Your task to perform on an android device: turn off location Image 0: 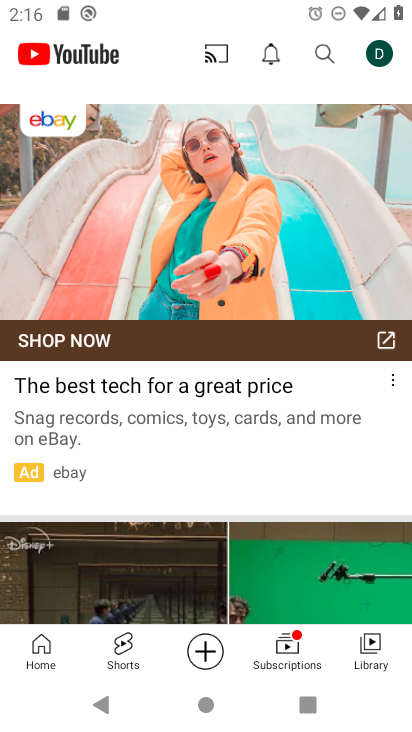
Step 0: press home button
Your task to perform on an android device: turn off location Image 1: 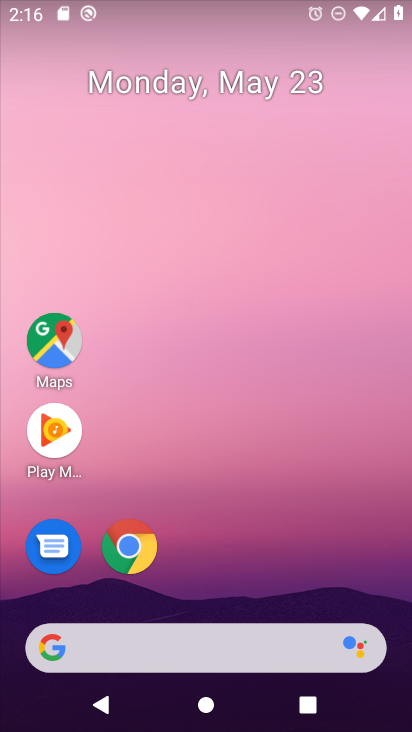
Step 1: drag from (203, 672) to (144, 199)
Your task to perform on an android device: turn off location Image 2: 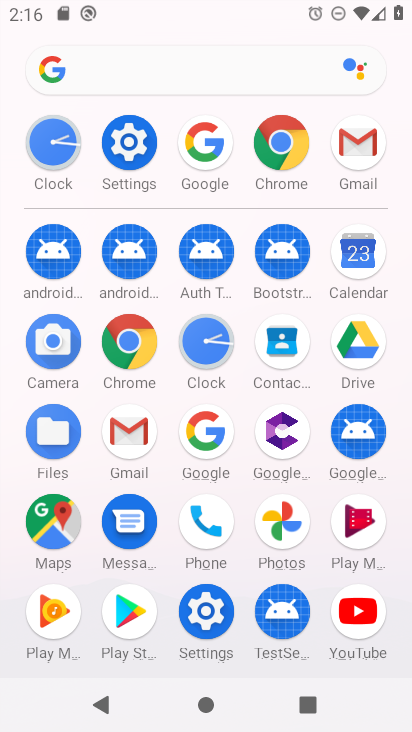
Step 2: click (139, 141)
Your task to perform on an android device: turn off location Image 3: 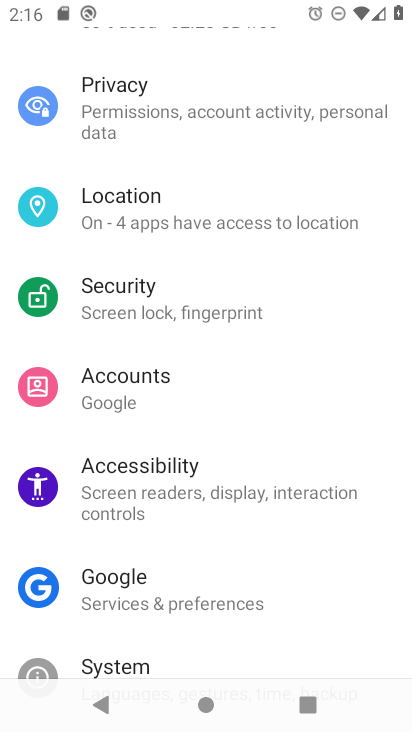
Step 3: drag from (170, 572) to (110, 234)
Your task to perform on an android device: turn off location Image 4: 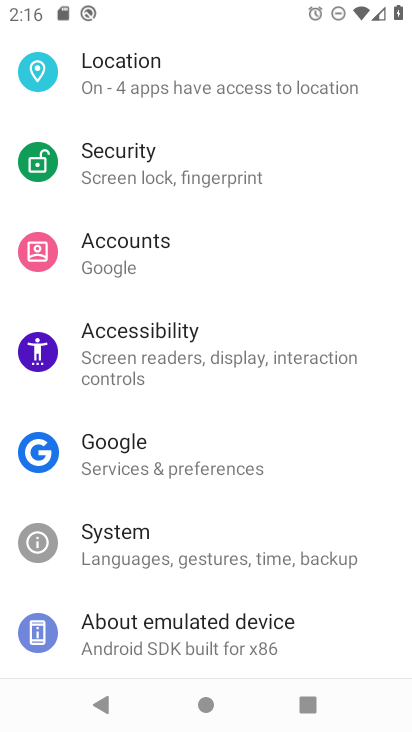
Step 4: click (125, 91)
Your task to perform on an android device: turn off location Image 5: 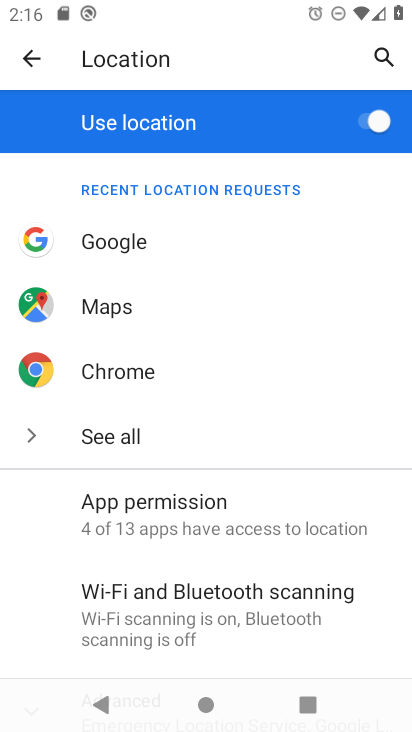
Step 5: click (361, 116)
Your task to perform on an android device: turn off location Image 6: 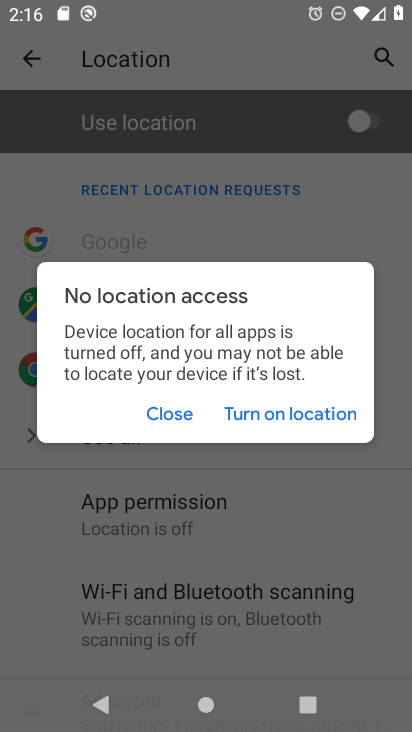
Step 6: click (159, 413)
Your task to perform on an android device: turn off location Image 7: 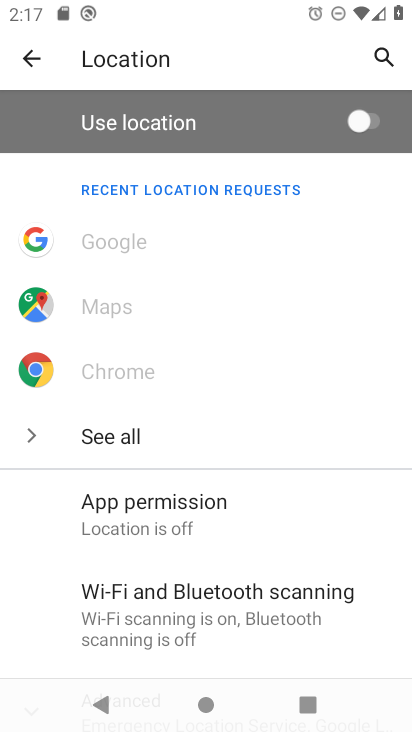
Step 7: task complete